Your task to perform on an android device: Go to CNN.com Image 0: 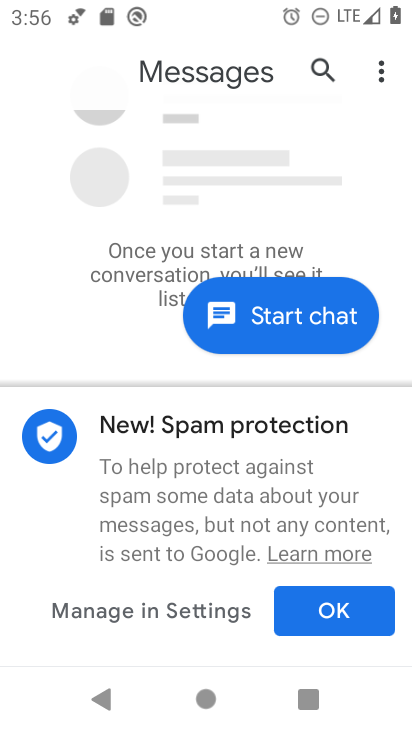
Step 0: press home button
Your task to perform on an android device: Go to CNN.com Image 1: 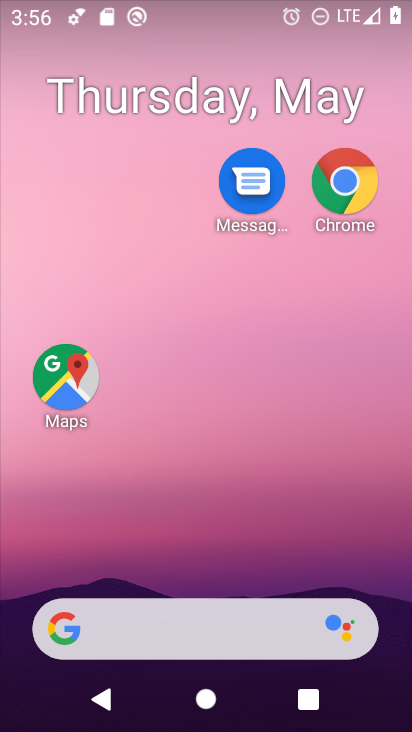
Step 1: drag from (311, 634) to (321, 27)
Your task to perform on an android device: Go to CNN.com Image 2: 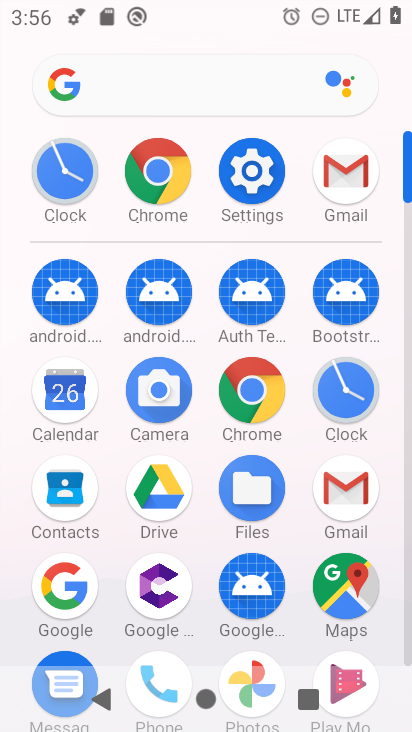
Step 2: click (254, 382)
Your task to perform on an android device: Go to CNN.com Image 3: 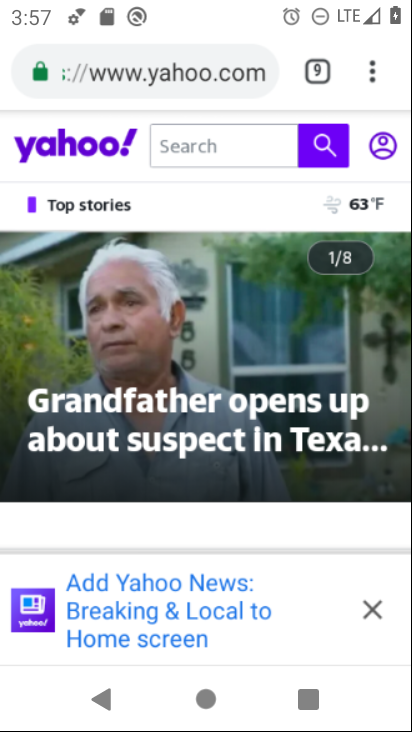
Step 3: click (241, 57)
Your task to perform on an android device: Go to CNN.com Image 4: 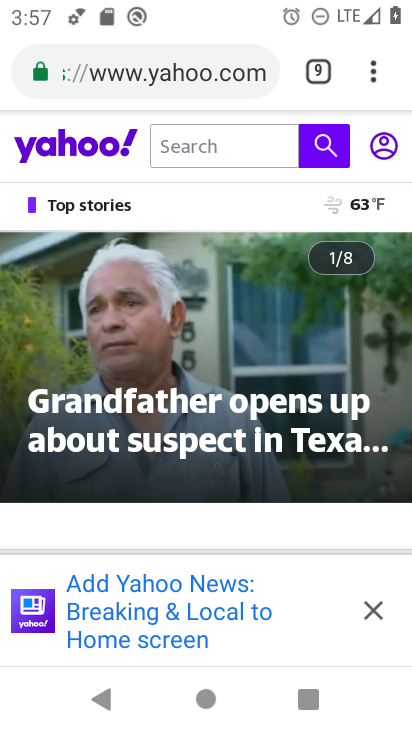
Step 4: click (115, 64)
Your task to perform on an android device: Go to CNN.com Image 5: 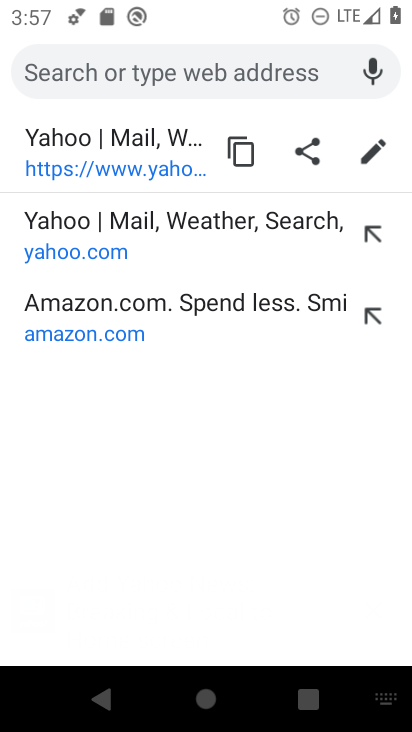
Step 5: type "cnn.com"
Your task to perform on an android device: Go to CNN.com Image 6: 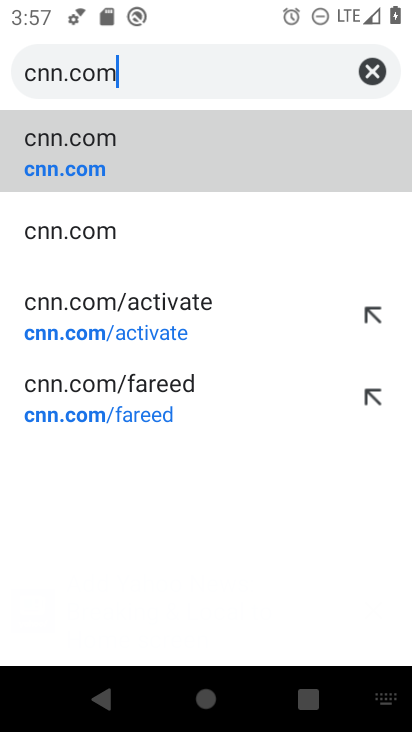
Step 6: click (162, 142)
Your task to perform on an android device: Go to CNN.com Image 7: 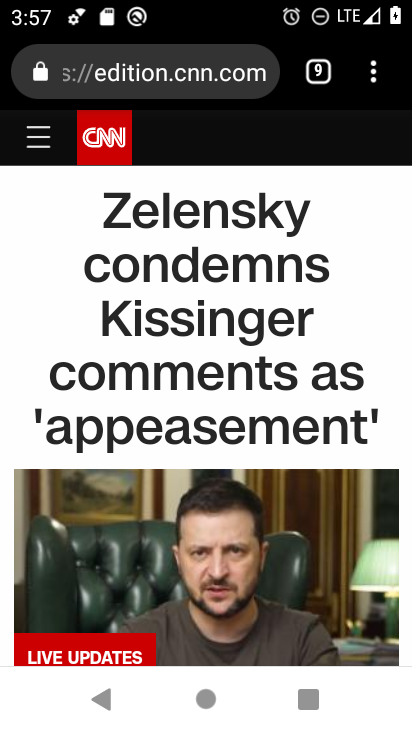
Step 7: task complete